Your task to perform on an android device: Open eBay Image 0: 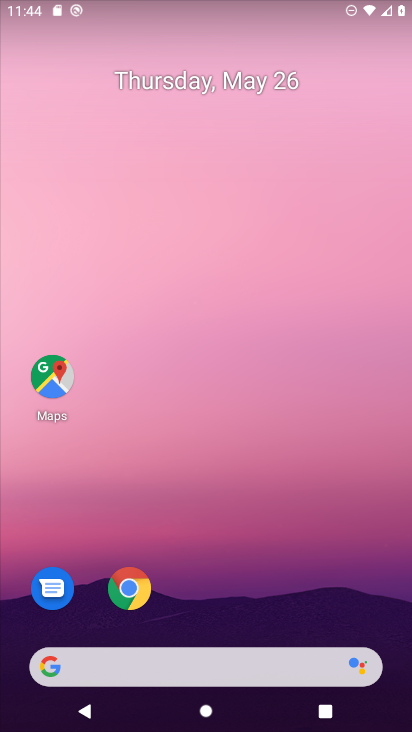
Step 0: click (129, 590)
Your task to perform on an android device: Open eBay Image 1: 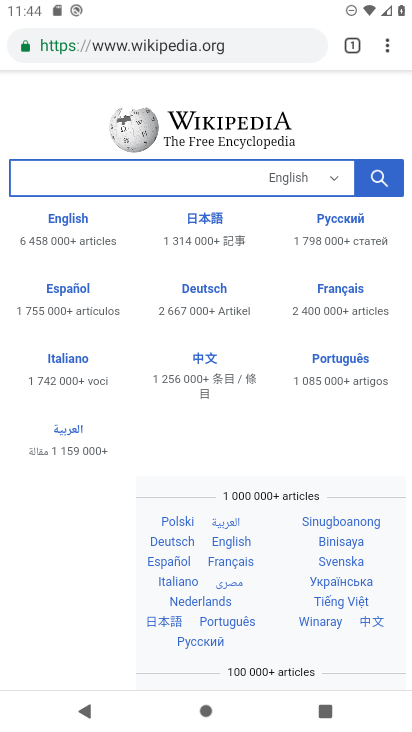
Step 1: click (259, 36)
Your task to perform on an android device: Open eBay Image 2: 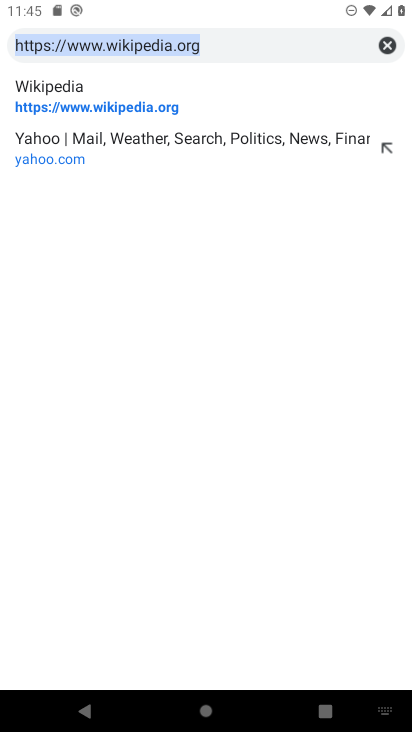
Step 2: click (382, 43)
Your task to perform on an android device: Open eBay Image 3: 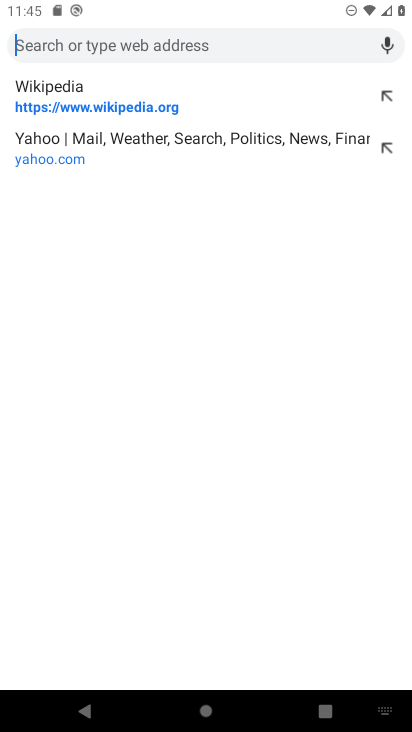
Step 3: type "ebay"
Your task to perform on an android device: Open eBay Image 4: 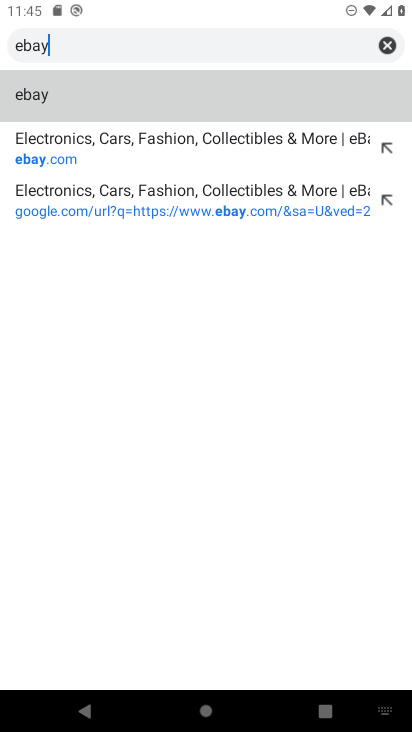
Step 4: click (42, 97)
Your task to perform on an android device: Open eBay Image 5: 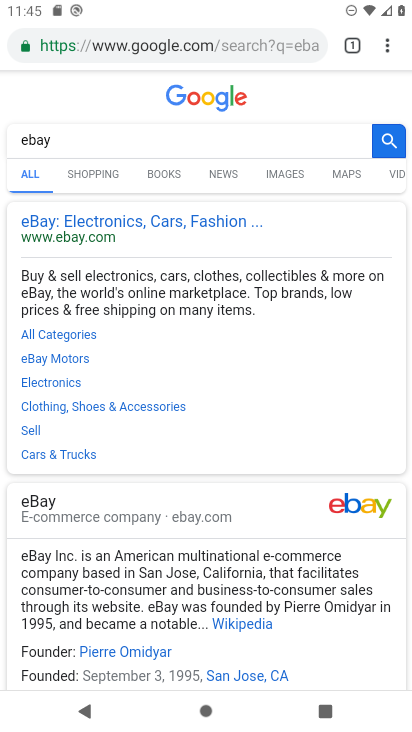
Step 5: click (65, 224)
Your task to perform on an android device: Open eBay Image 6: 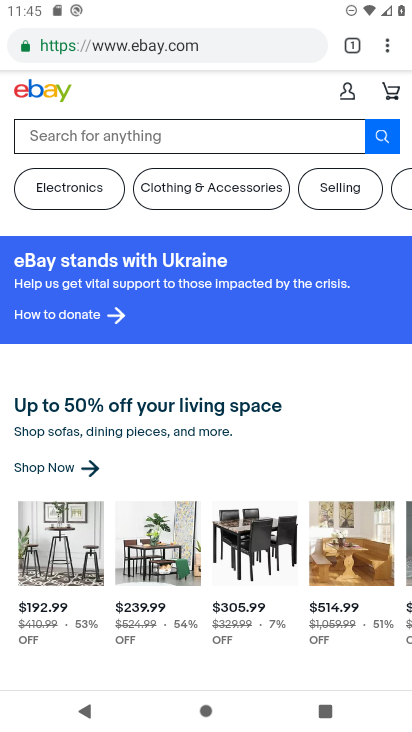
Step 6: task complete